Your task to perform on an android device: choose inbox layout in the gmail app Image 0: 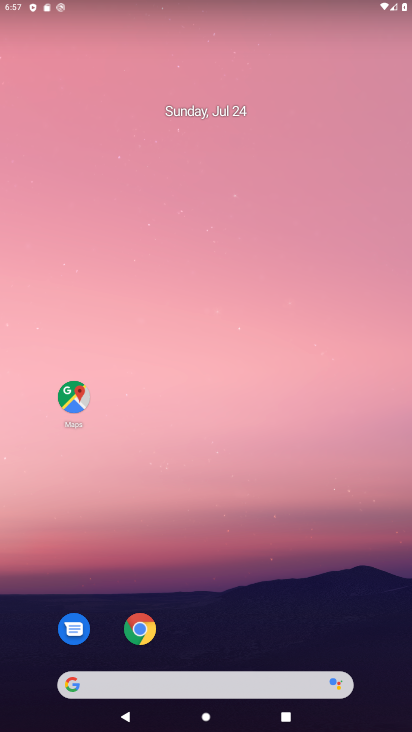
Step 0: drag from (372, 646) to (244, 0)
Your task to perform on an android device: choose inbox layout in the gmail app Image 1: 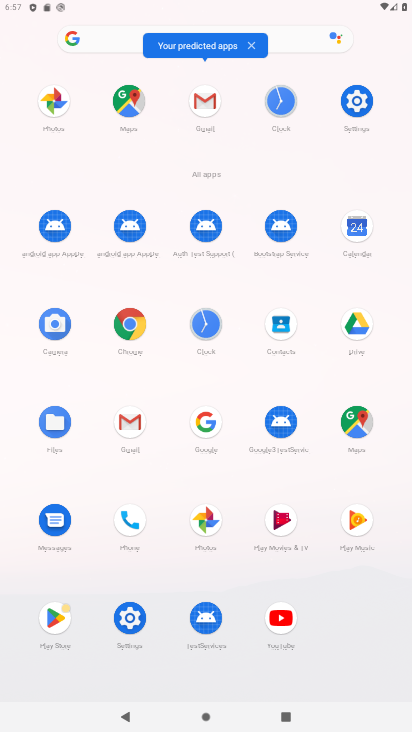
Step 1: click (127, 436)
Your task to perform on an android device: choose inbox layout in the gmail app Image 2: 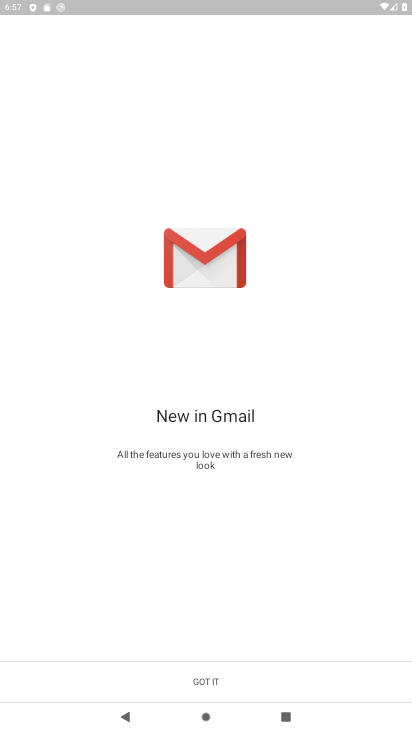
Step 2: click (221, 676)
Your task to perform on an android device: choose inbox layout in the gmail app Image 3: 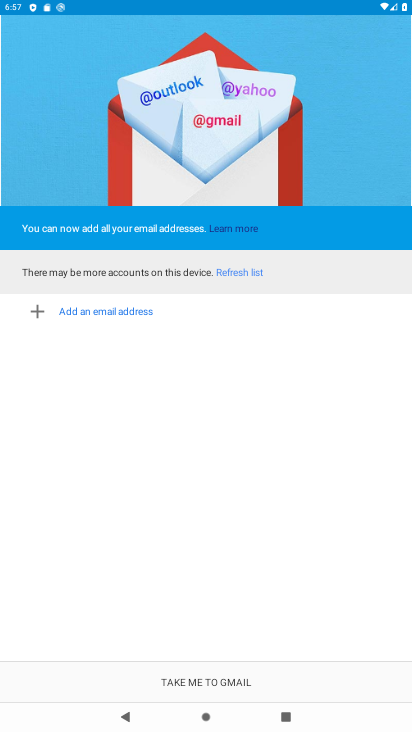
Step 3: click (187, 683)
Your task to perform on an android device: choose inbox layout in the gmail app Image 4: 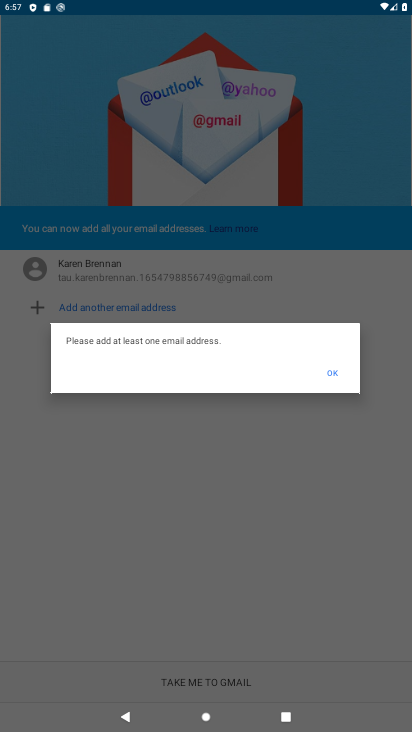
Step 4: click (340, 370)
Your task to perform on an android device: choose inbox layout in the gmail app Image 5: 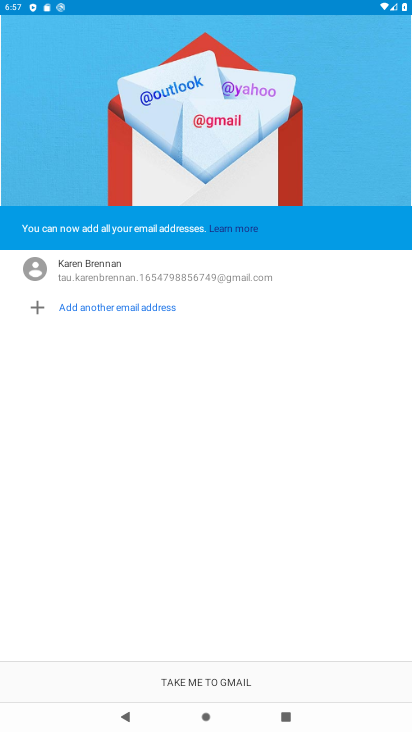
Step 5: click (203, 665)
Your task to perform on an android device: choose inbox layout in the gmail app Image 6: 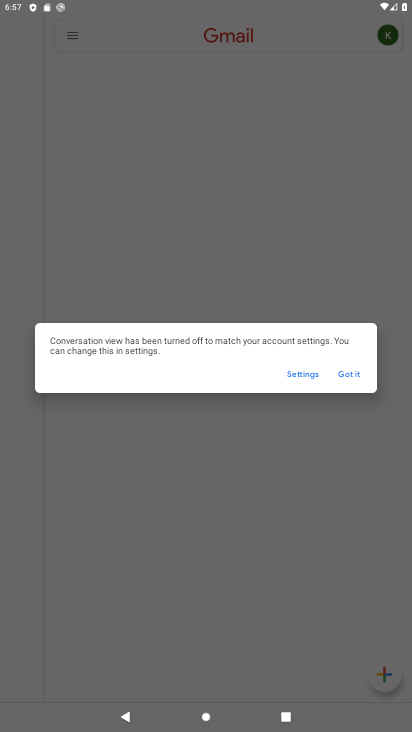
Step 6: click (343, 374)
Your task to perform on an android device: choose inbox layout in the gmail app Image 7: 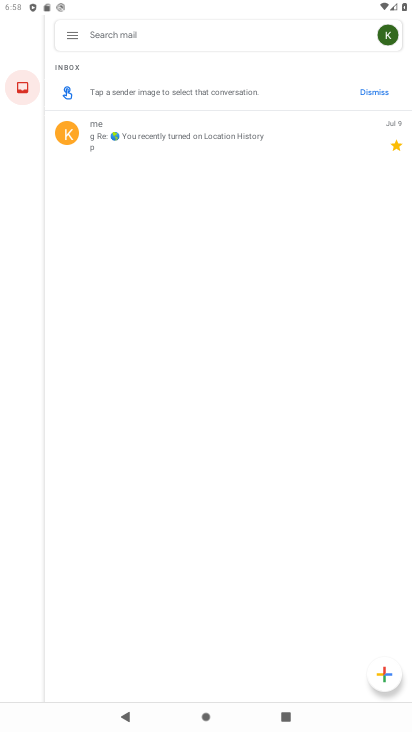
Step 7: task complete